Your task to perform on an android device: turn pop-ups off in chrome Image 0: 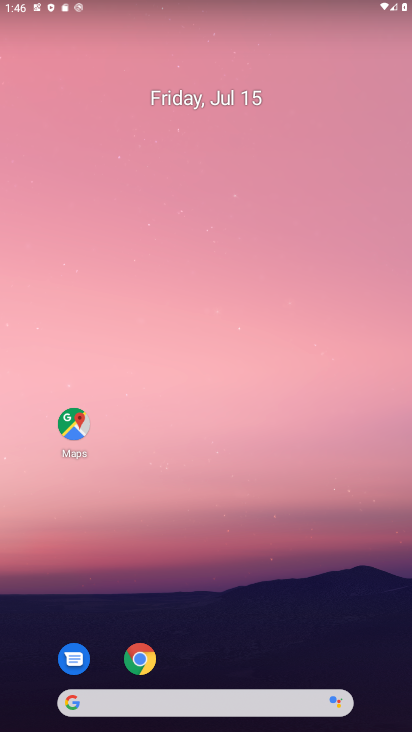
Step 0: drag from (266, 691) to (266, 205)
Your task to perform on an android device: turn pop-ups off in chrome Image 1: 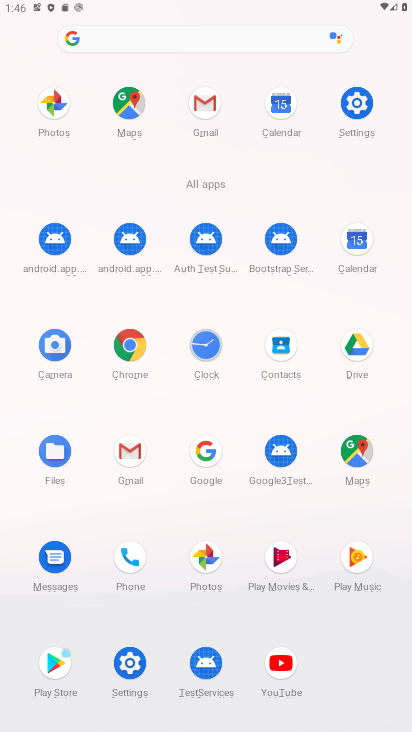
Step 1: click (135, 349)
Your task to perform on an android device: turn pop-ups off in chrome Image 2: 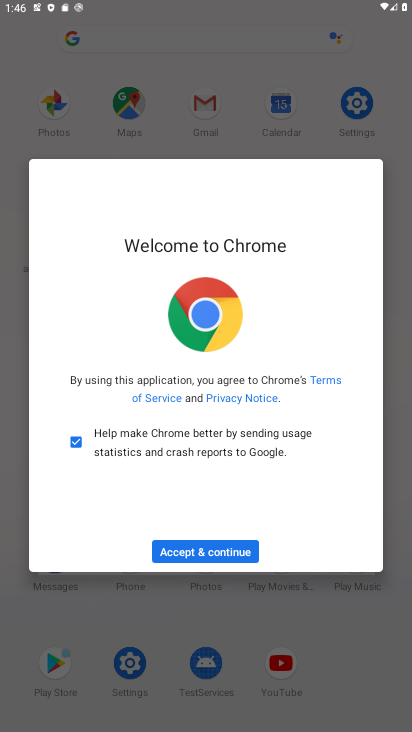
Step 2: click (232, 557)
Your task to perform on an android device: turn pop-ups off in chrome Image 3: 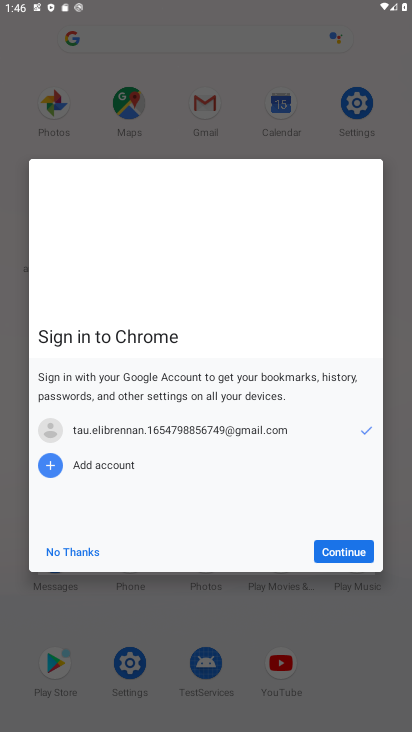
Step 3: click (365, 553)
Your task to perform on an android device: turn pop-ups off in chrome Image 4: 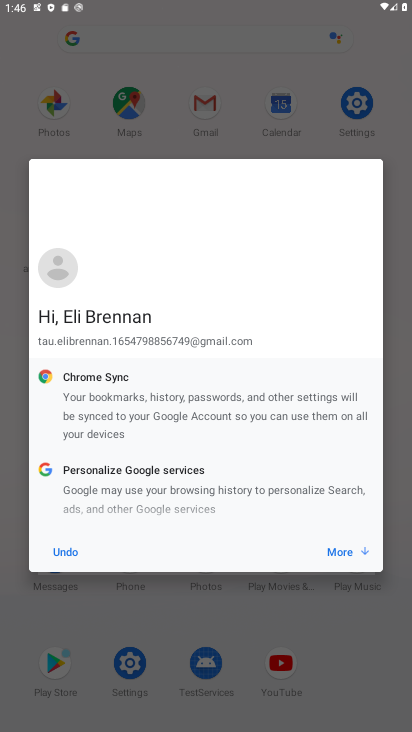
Step 4: click (341, 542)
Your task to perform on an android device: turn pop-ups off in chrome Image 5: 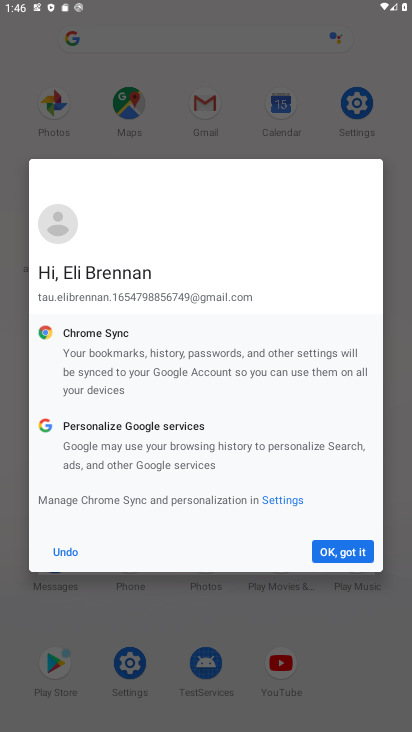
Step 5: click (359, 554)
Your task to perform on an android device: turn pop-ups off in chrome Image 6: 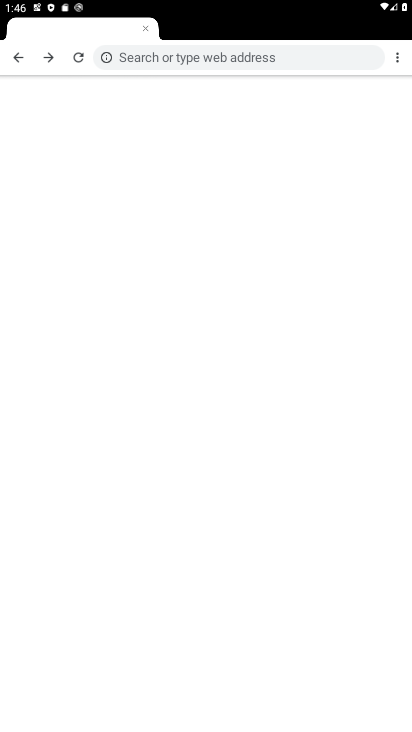
Step 6: press back button
Your task to perform on an android device: turn pop-ups off in chrome Image 7: 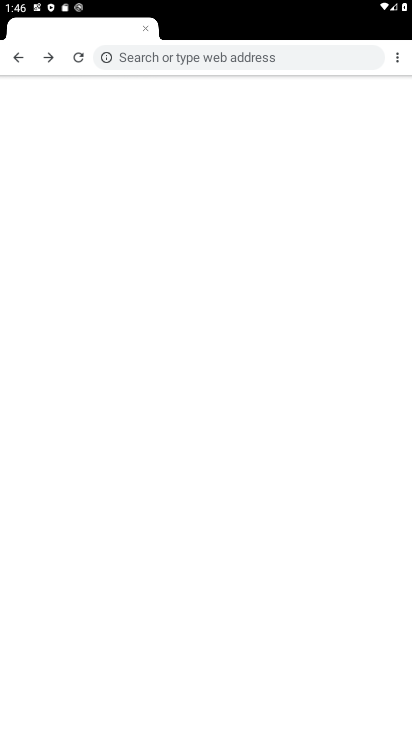
Step 7: click (407, 51)
Your task to perform on an android device: turn pop-ups off in chrome Image 8: 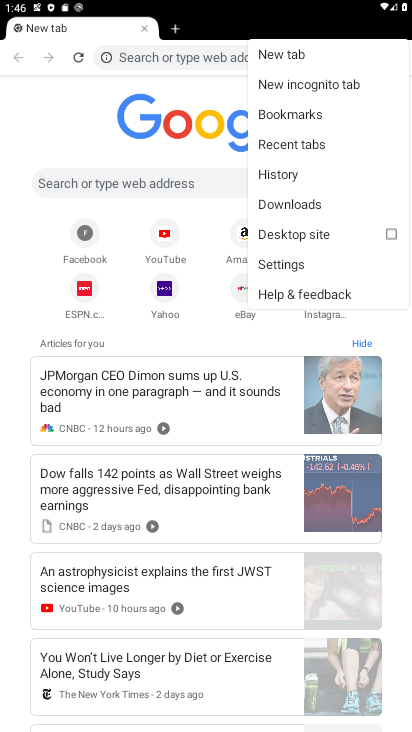
Step 8: click (297, 259)
Your task to perform on an android device: turn pop-ups off in chrome Image 9: 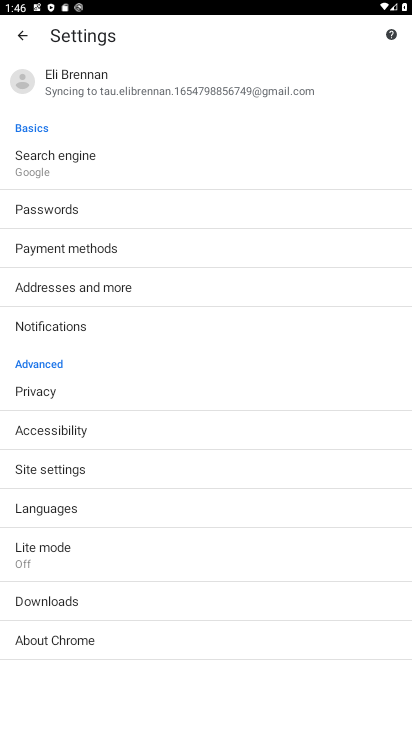
Step 9: click (99, 470)
Your task to perform on an android device: turn pop-ups off in chrome Image 10: 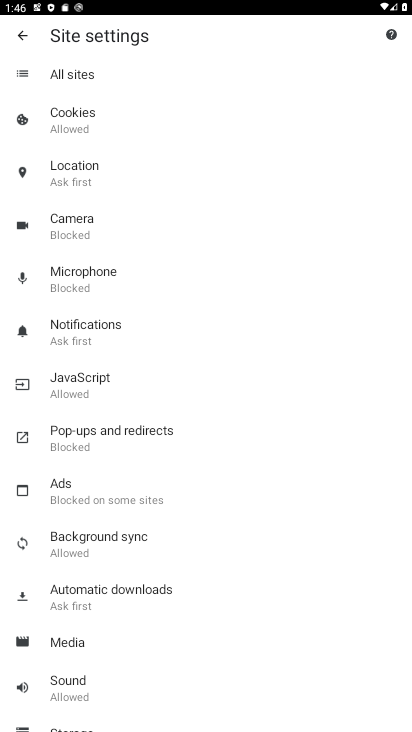
Step 10: click (96, 433)
Your task to perform on an android device: turn pop-ups off in chrome Image 11: 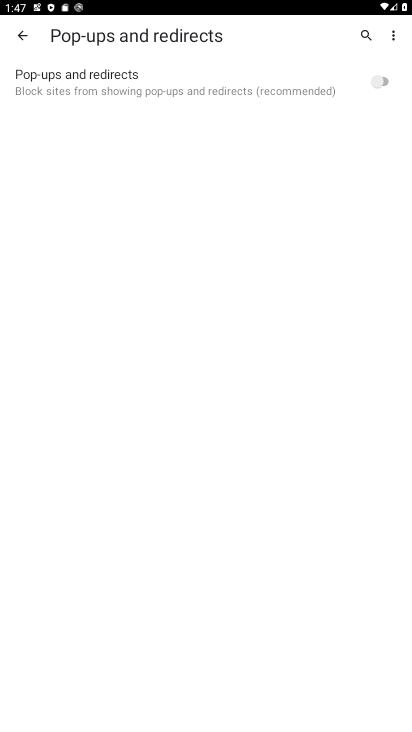
Step 11: task complete